Your task to perform on an android device: Do I have any events tomorrow? Image 0: 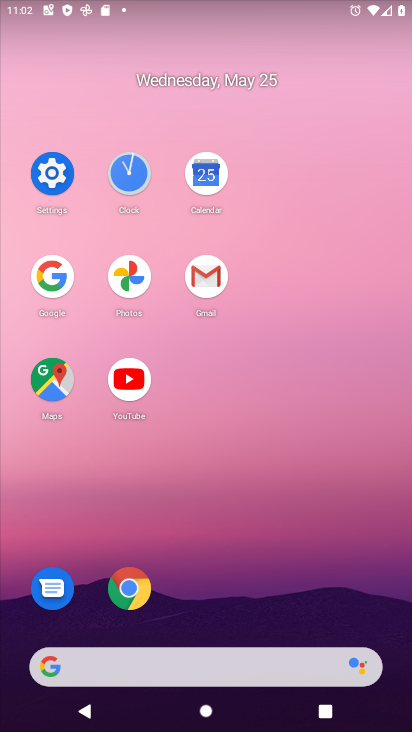
Step 0: click (205, 168)
Your task to perform on an android device: Do I have any events tomorrow? Image 1: 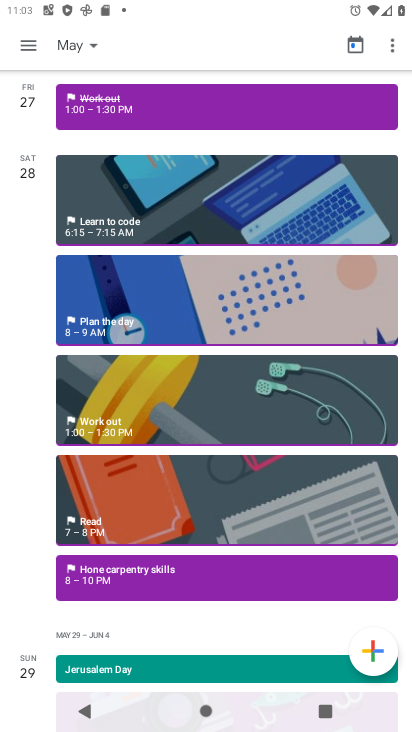
Step 1: click (22, 99)
Your task to perform on an android device: Do I have any events tomorrow? Image 2: 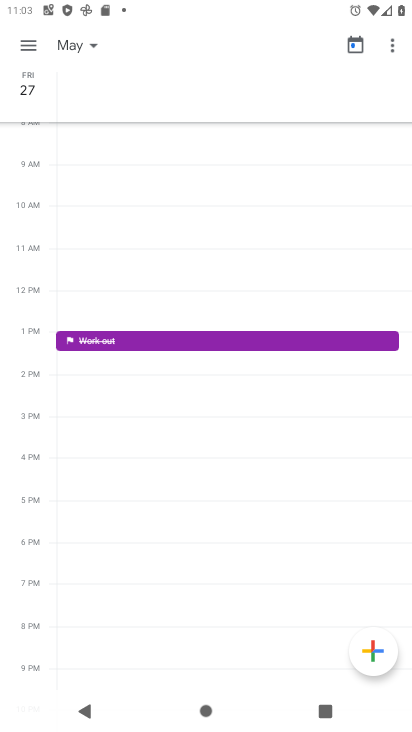
Step 2: task complete